Your task to perform on an android device: change notification settings in the gmail app Image 0: 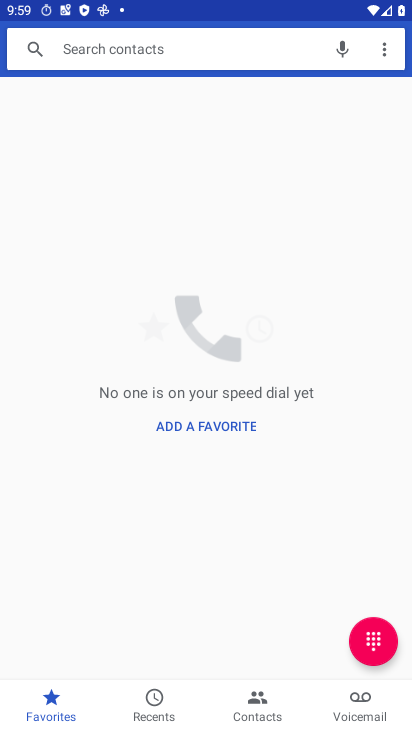
Step 0: press home button
Your task to perform on an android device: change notification settings in the gmail app Image 1: 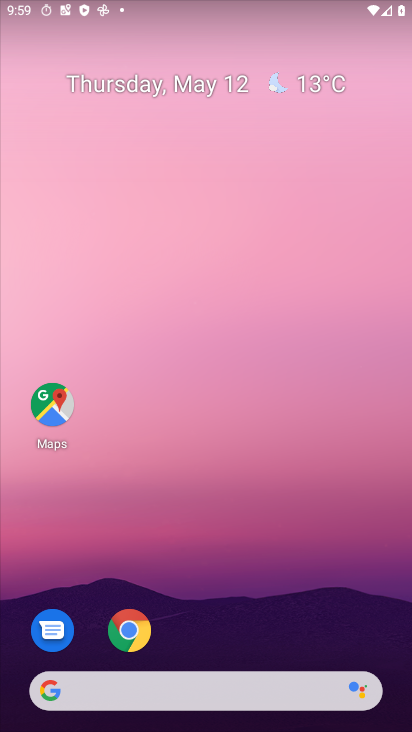
Step 1: drag from (210, 691) to (168, 0)
Your task to perform on an android device: change notification settings in the gmail app Image 2: 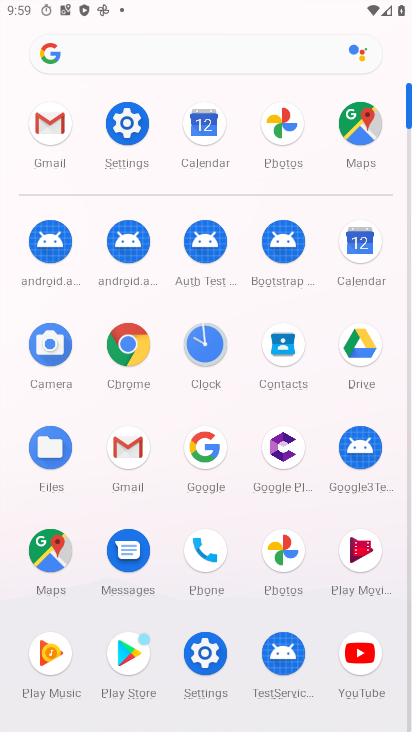
Step 2: click (127, 459)
Your task to perform on an android device: change notification settings in the gmail app Image 3: 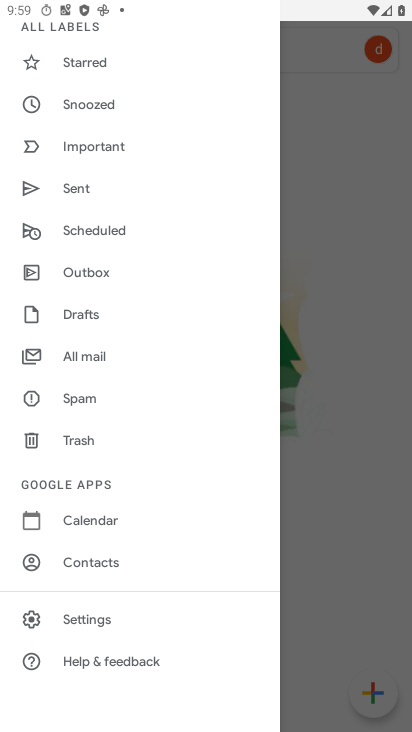
Step 3: click (95, 623)
Your task to perform on an android device: change notification settings in the gmail app Image 4: 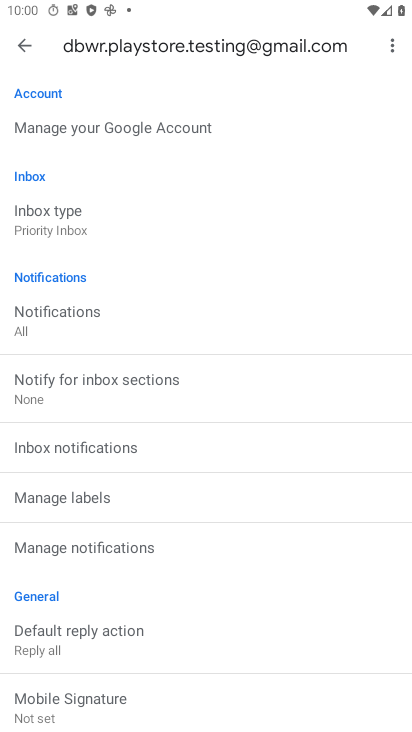
Step 4: click (75, 552)
Your task to perform on an android device: change notification settings in the gmail app Image 5: 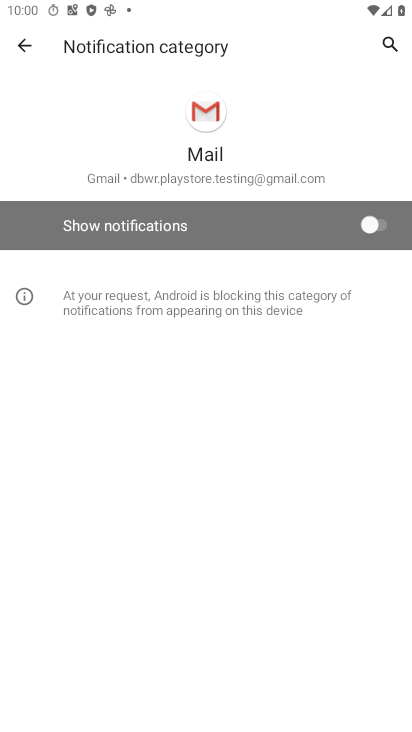
Step 5: click (369, 220)
Your task to perform on an android device: change notification settings in the gmail app Image 6: 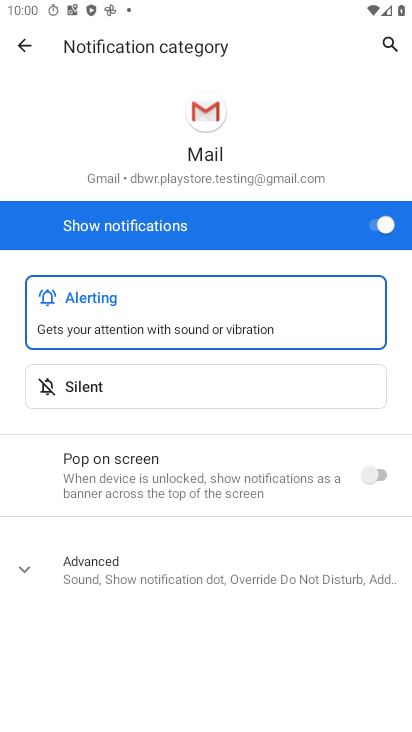
Step 6: task complete